Your task to perform on an android device: change your default location settings in chrome Image 0: 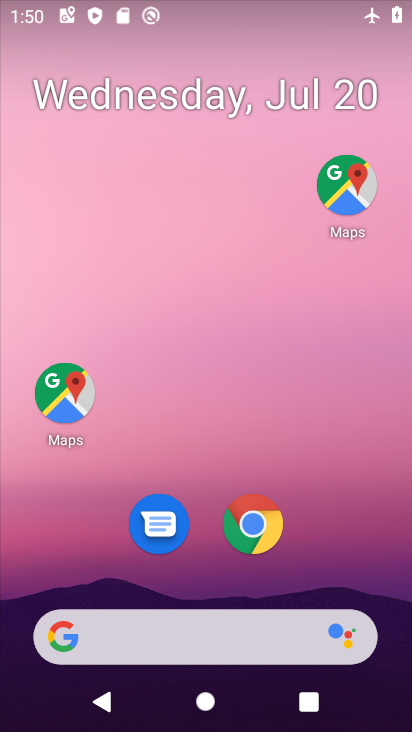
Step 0: click (258, 519)
Your task to perform on an android device: change your default location settings in chrome Image 1: 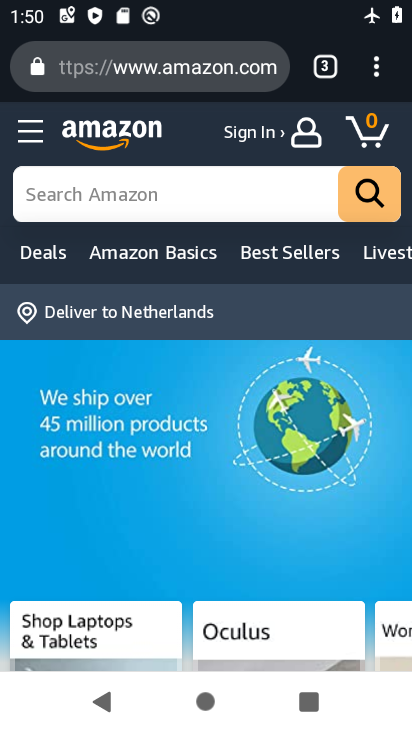
Step 1: click (377, 72)
Your task to perform on an android device: change your default location settings in chrome Image 2: 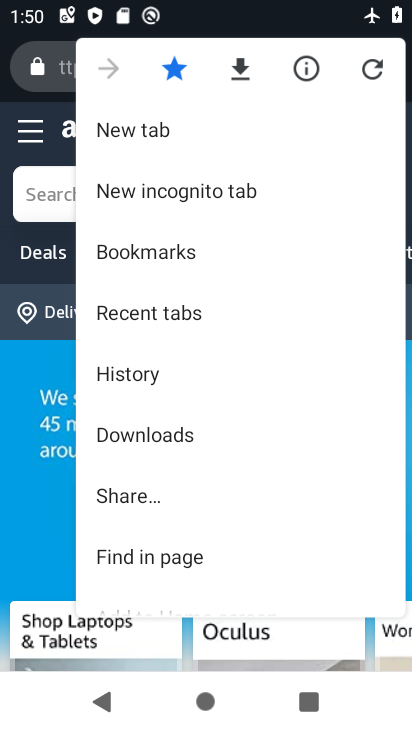
Step 2: drag from (299, 554) to (294, 190)
Your task to perform on an android device: change your default location settings in chrome Image 3: 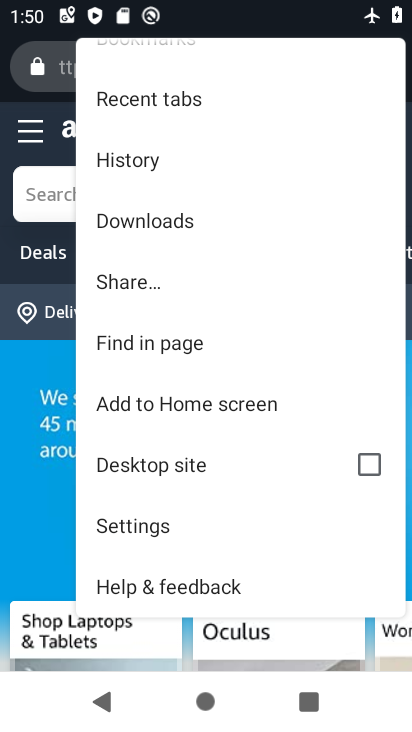
Step 3: click (151, 518)
Your task to perform on an android device: change your default location settings in chrome Image 4: 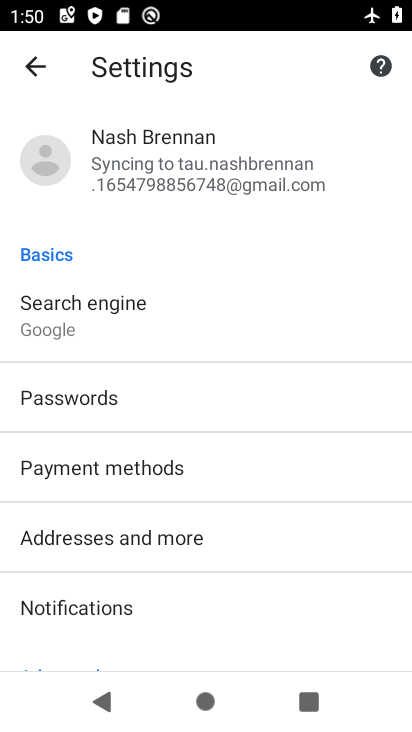
Step 4: drag from (244, 529) to (360, 196)
Your task to perform on an android device: change your default location settings in chrome Image 5: 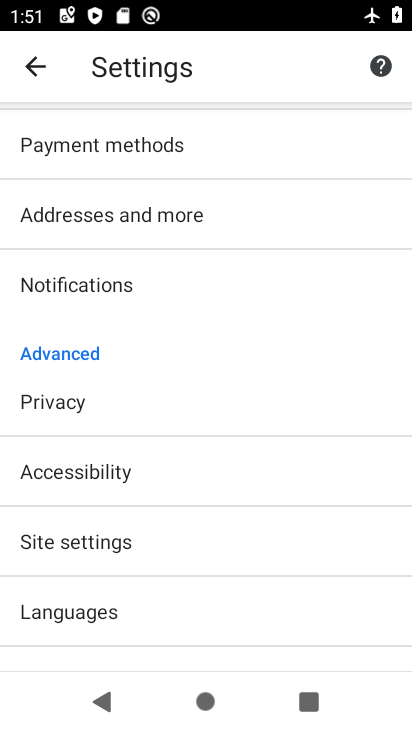
Step 5: click (129, 532)
Your task to perform on an android device: change your default location settings in chrome Image 6: 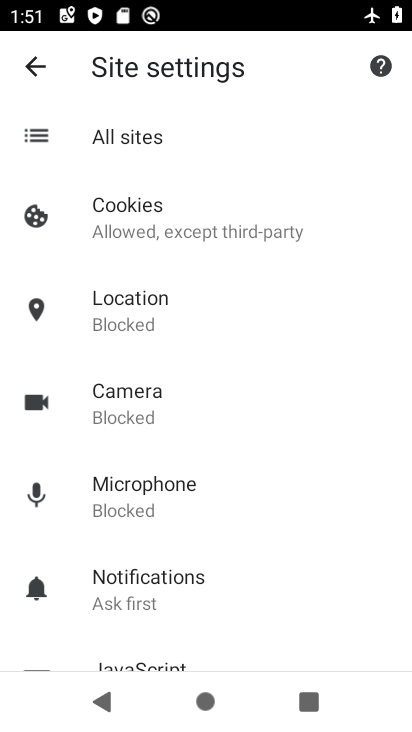
Step 6: click (149, 319)
Your task to perform on an android device: change your default location settings in chrome Image 7: 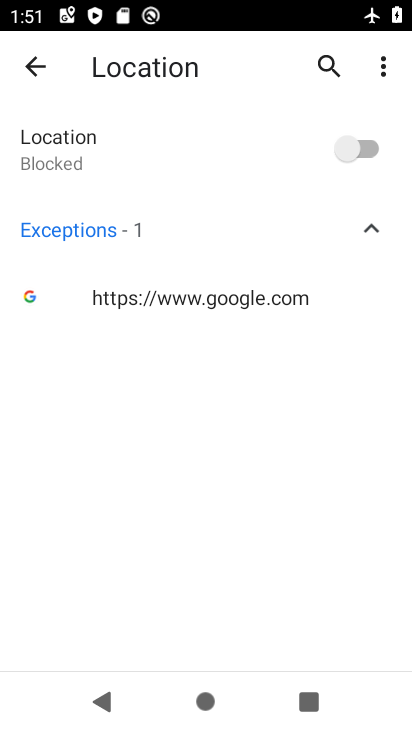
Step 7: click (352, 142)
Your task to perform on an android device: change your default location settings in chrome Image 8: 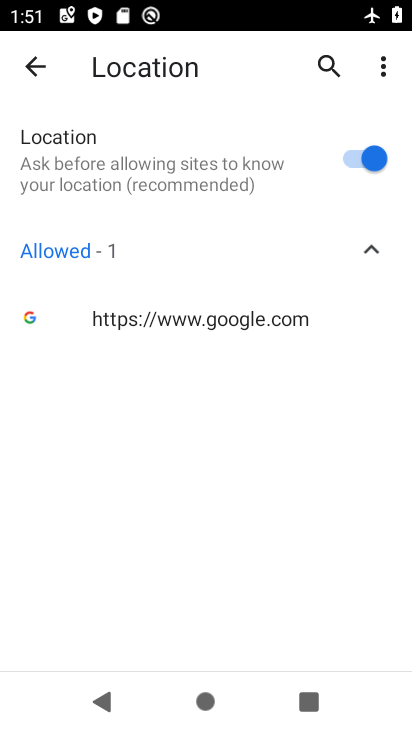
Step 8: task complete